Your task to perform on an android device: search for starred emails in the gmail app Image 0: 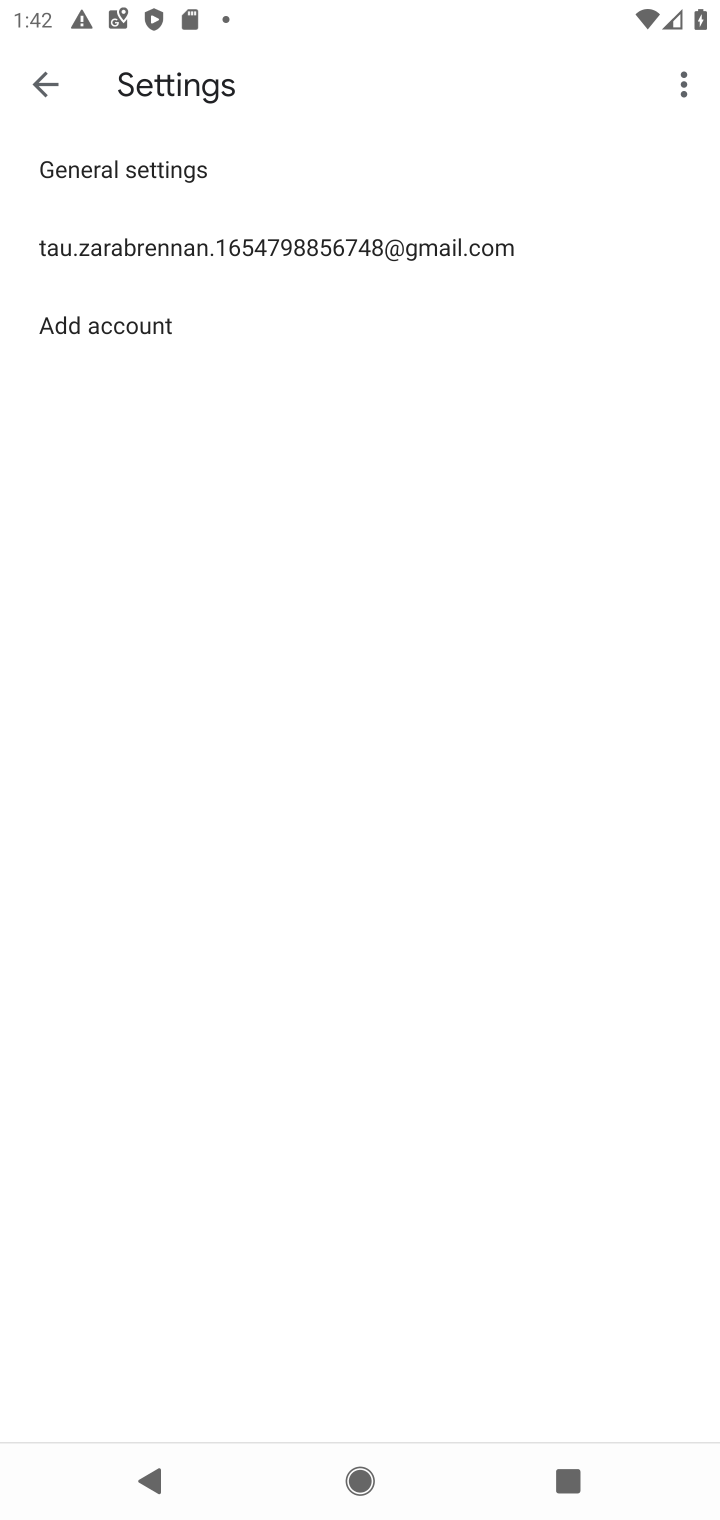
Step 0: press home button
Your task to perform on an android device: search for starred emails in the gmail app Image 1: 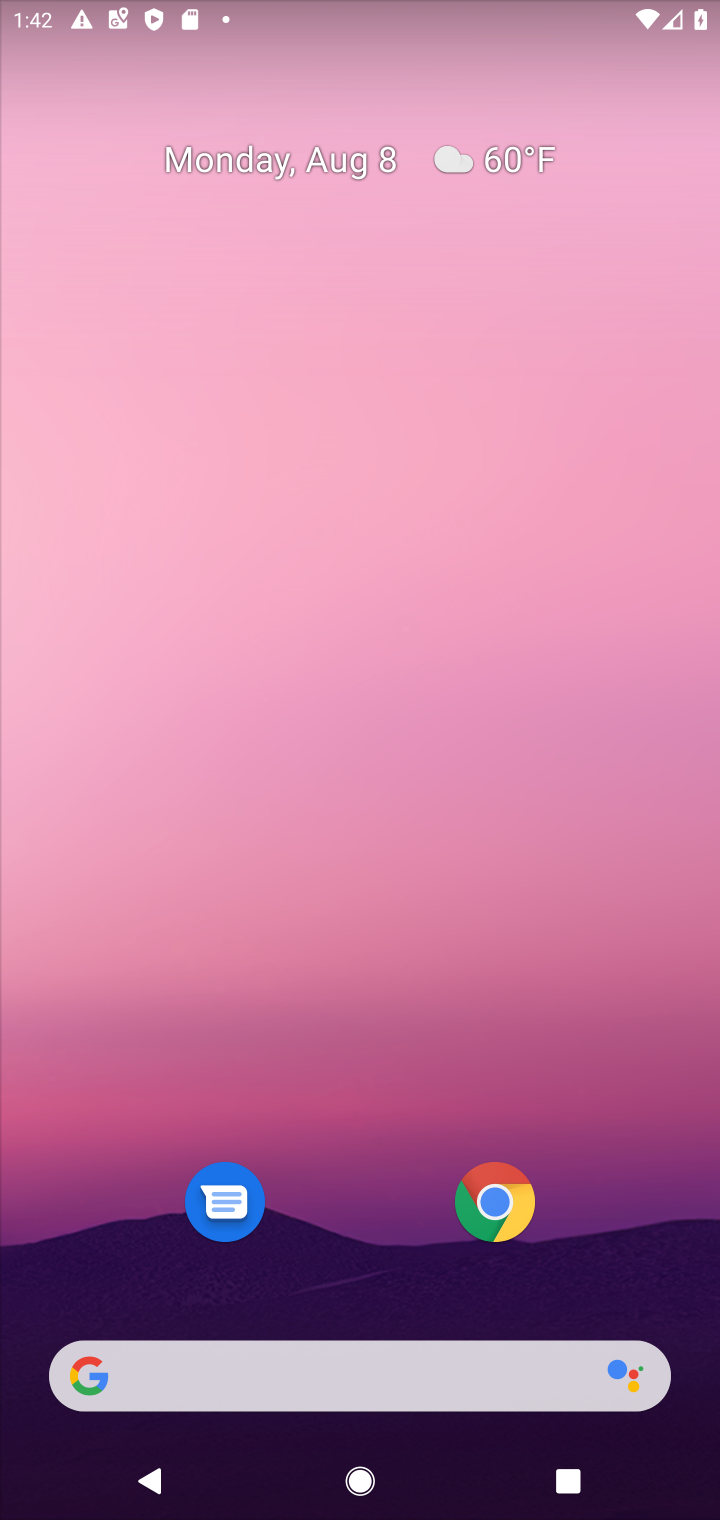
Step 1: drag from (593, 1173) to (675, 120)
Your task to perform on an android device: search for starred emails in the gmail app Image 2: 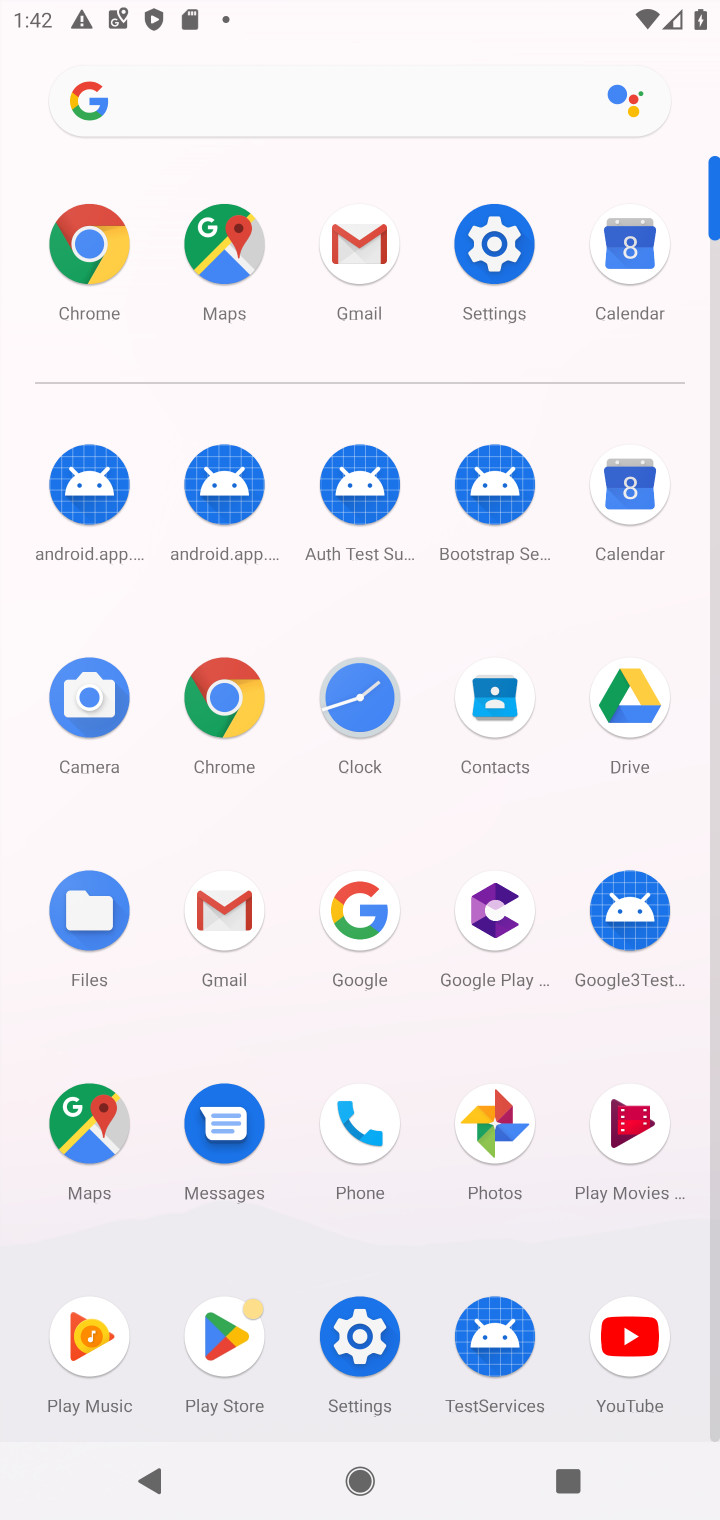
Step 2: click (226, 928)
Your task to perform on an android device: search for starred emails in the gmail app Image 3: 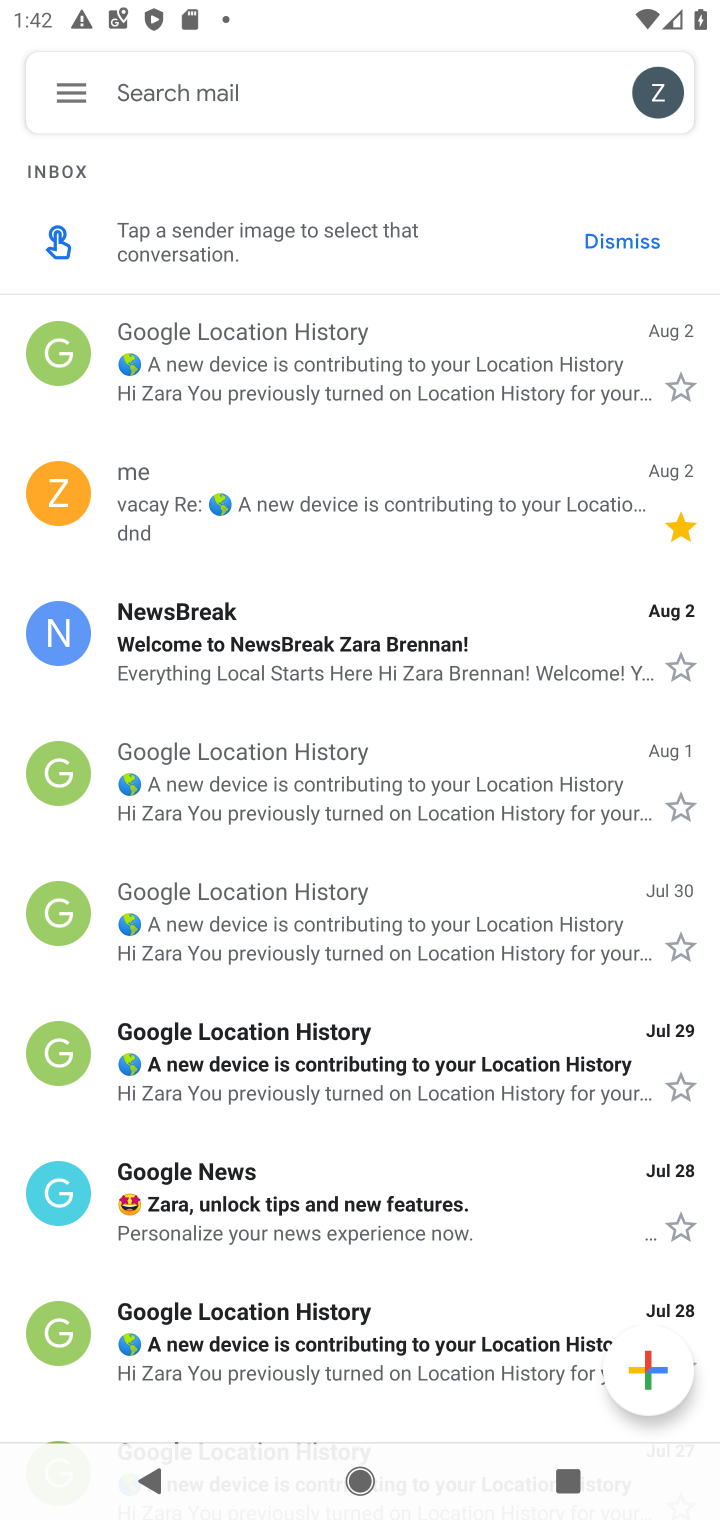
Step 3: click (66, 89)
Your task to perform on an android device: search for starred emails in the gmail app Image 4: 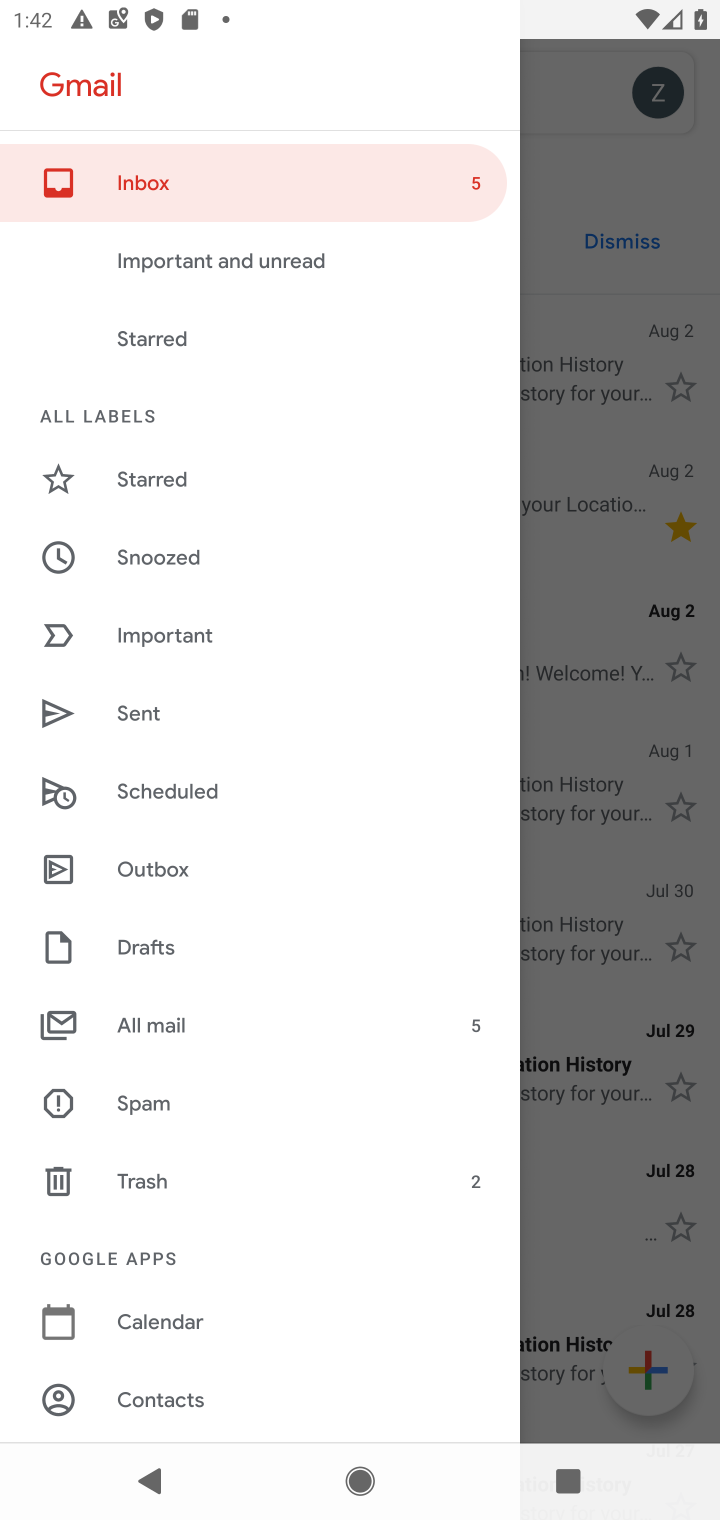
Step 4: drag from (343, 766) to (353, 496)
Your task to perform on an android device: search for starred emails in the gmail app Image 5: 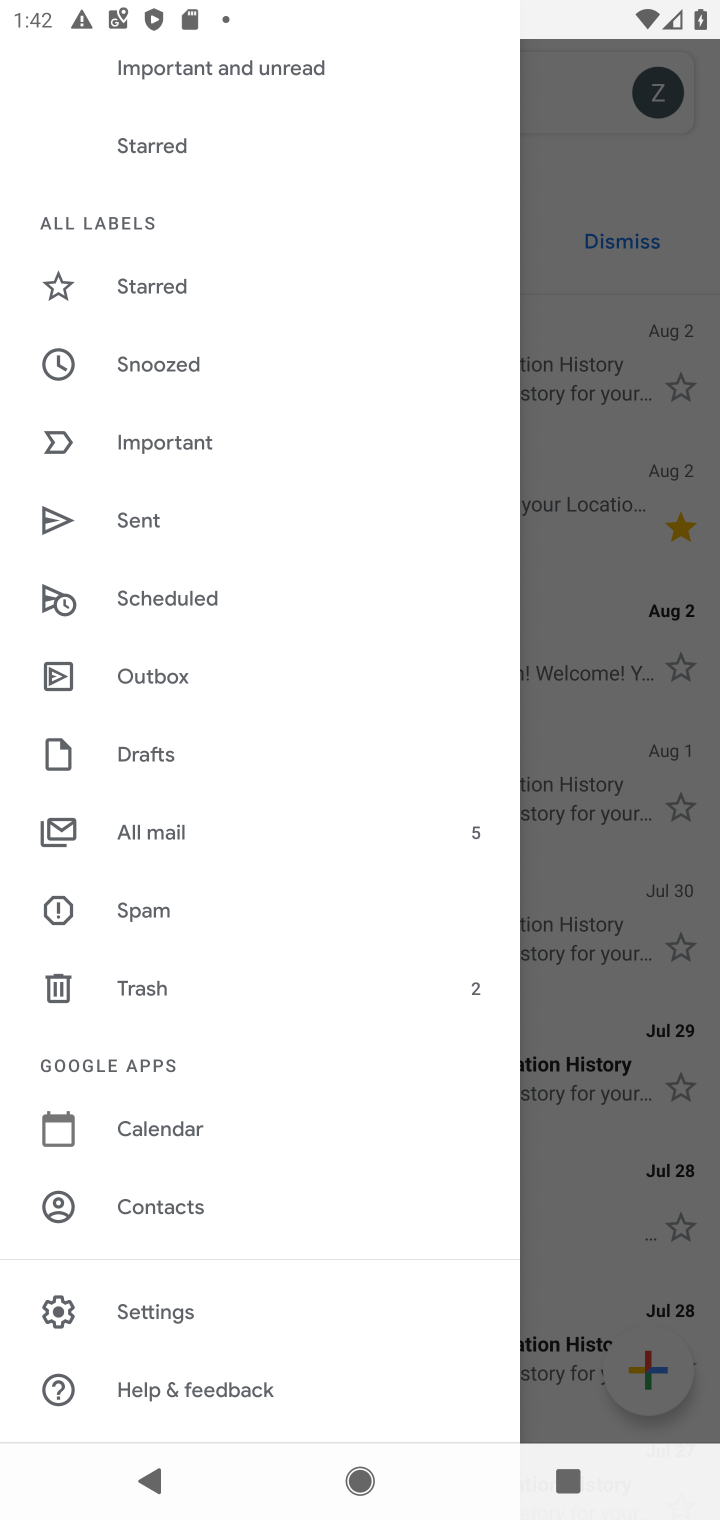
Step 5: drag from (304, 804) to (343, 560)
Your task to perform on an android device: search for starred emails in the gmail app Image 6: 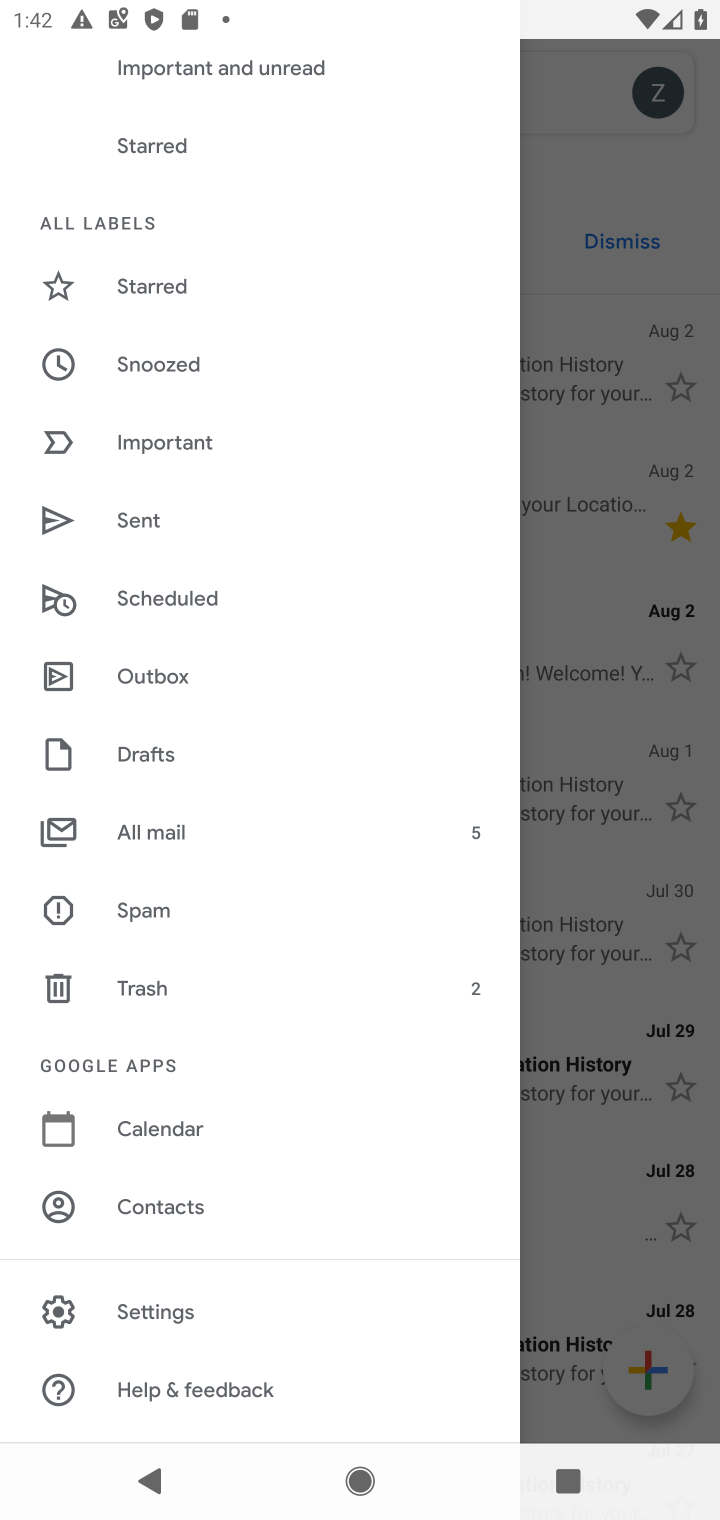
Step 6: click (166, 291)
Your task to perform on an android device: search for starred emails in the gmail app Image 7: 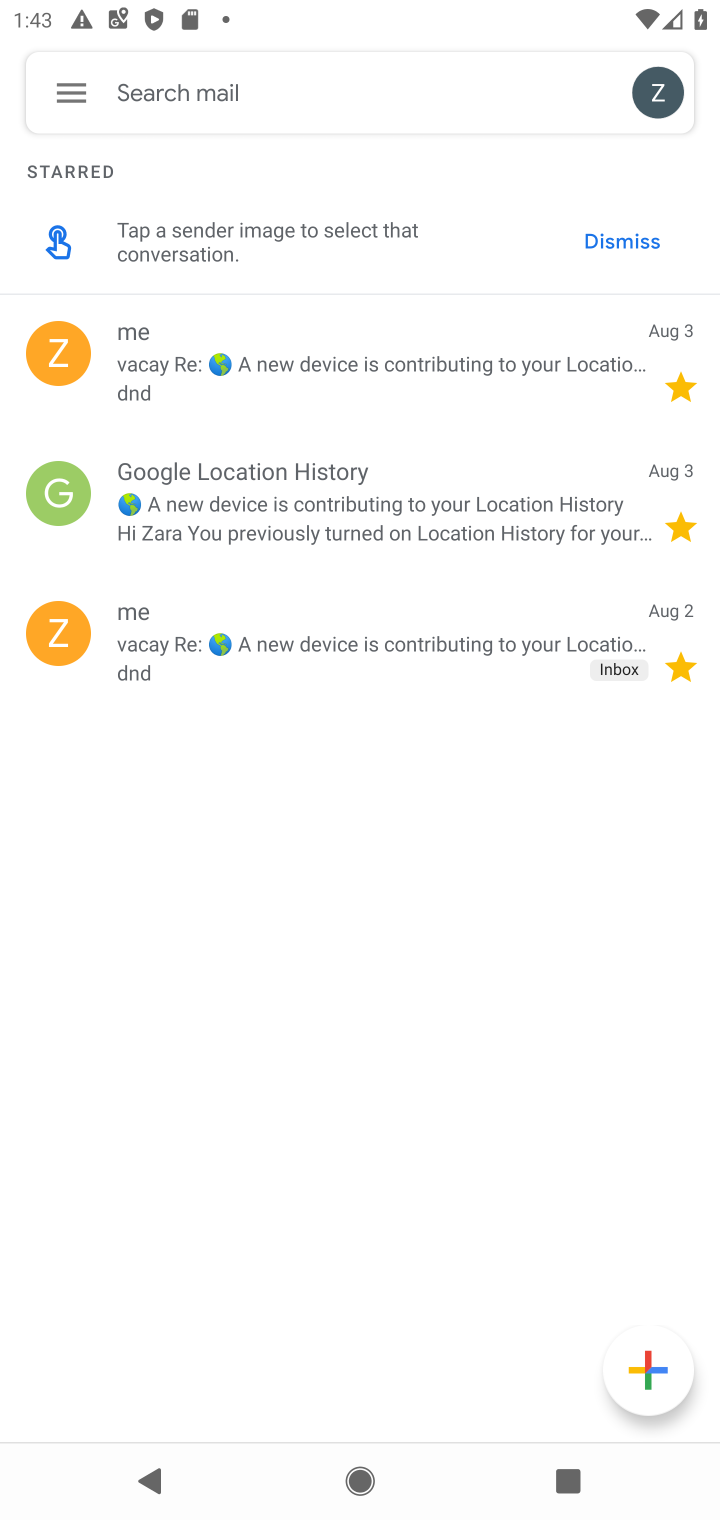
Step 7: task complete